Your task to perform on an android device: What's the weather going to be tomorrow? Image 0: 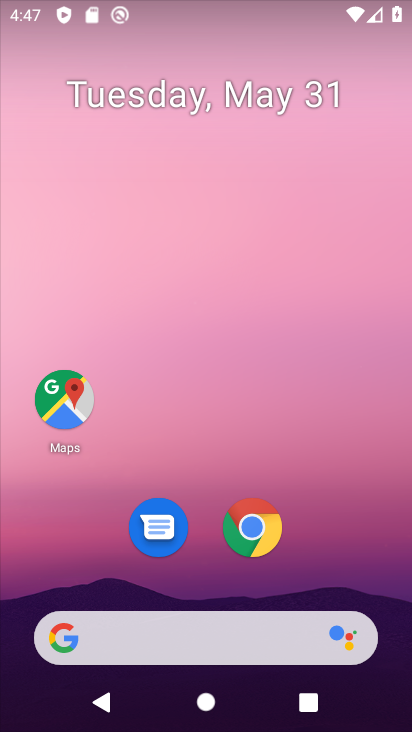
Step 0: click (52, 400)
Your task to perform on an android device: What's the weather going to be tomorrow? Image 1: 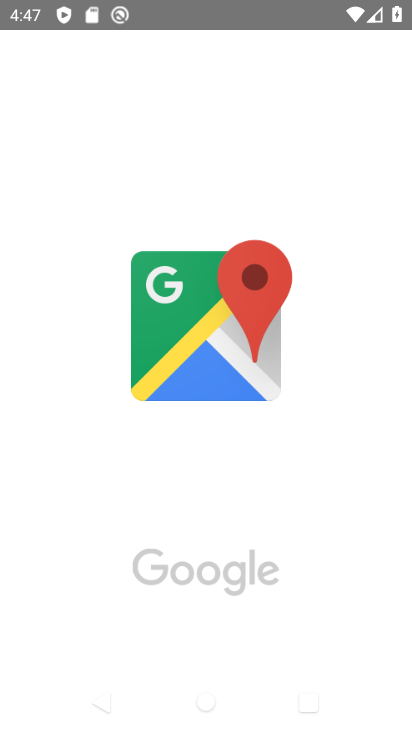
Step 1: press home button
Your task to perform on an android device: What's the weather going to be tomorrow? Image 2: 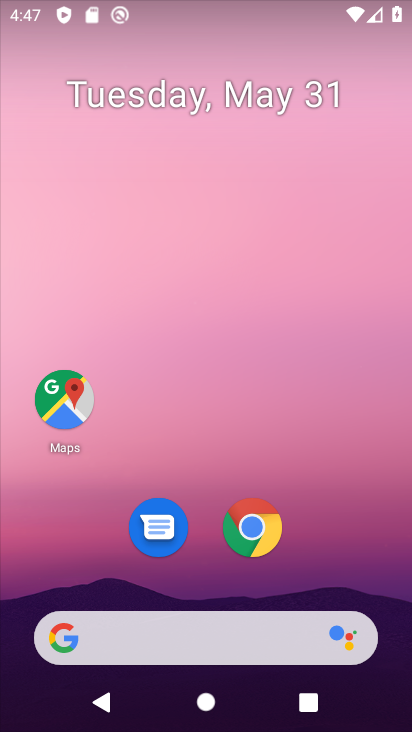
Step 2: drag from (244, 564) to (252, 144)
Your task to perform on an android device: What's the weather going to be tomorrow? Image 3: 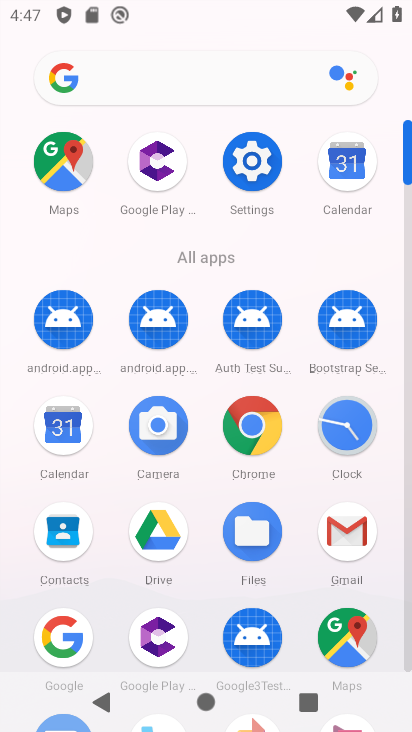
Step 3: click (258, 424)
Your task to perform on an android device: What's the weather going to be tomorrow? Image 4: 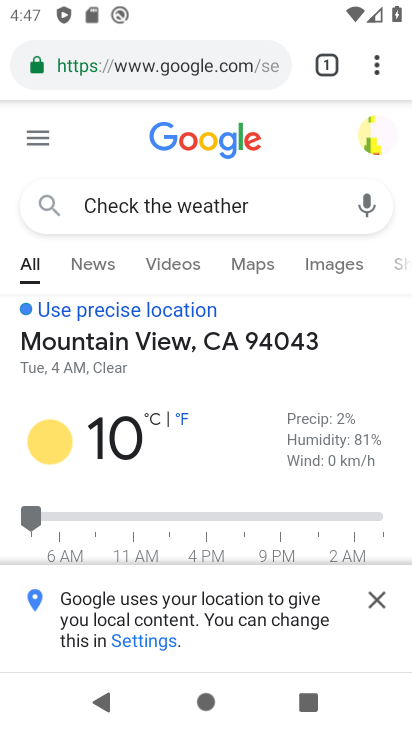
Step 4: click (204, 57)
Your task to perform on an android device: What's the weather going to be tomorrow? Image 5: 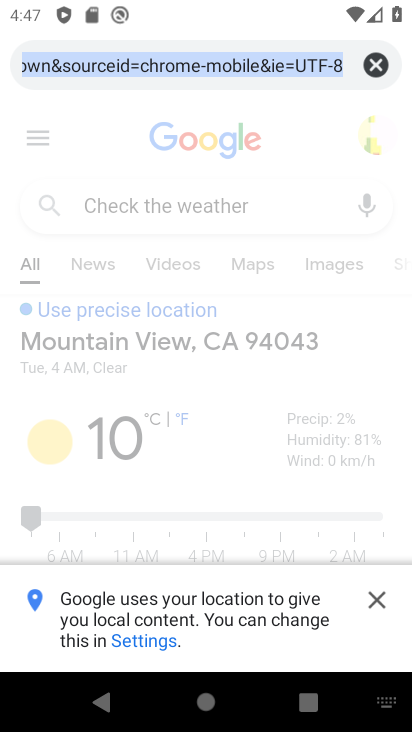
Step 5: click (382, 62)
Your task to perform on an android device: What's the weather going to be tomorrow? Image 6: 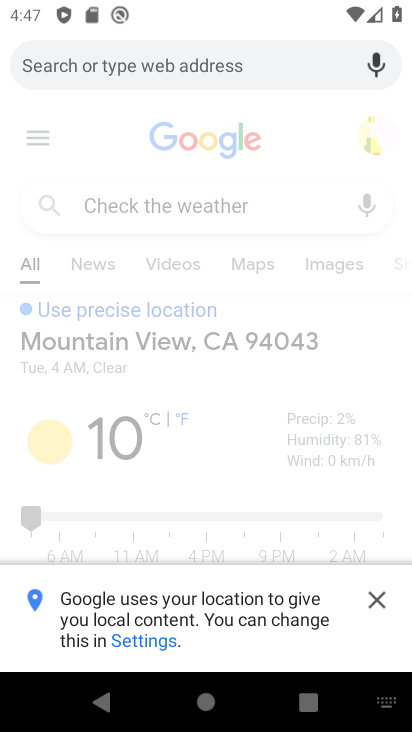
Step 6: drag from (138, 731) to (235, 731)
Your task to perform on an android device: What's the weather going to be tomorrow? Image 7: 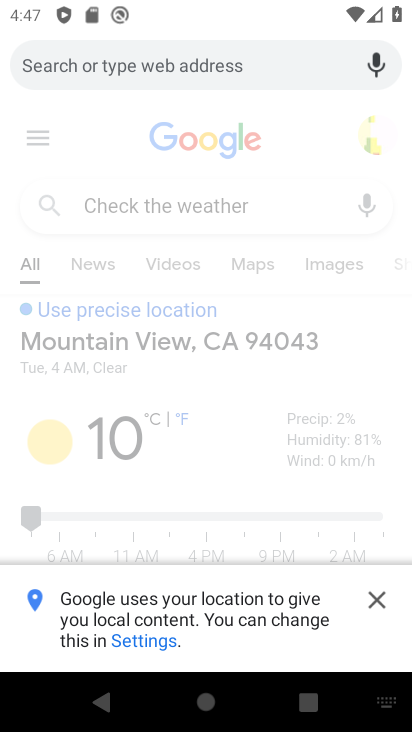
Step 7: type "What's the weather going to be tomorrow?"
Your task to perform on an android device: What's the weather going to be tomorrow? Image 8: 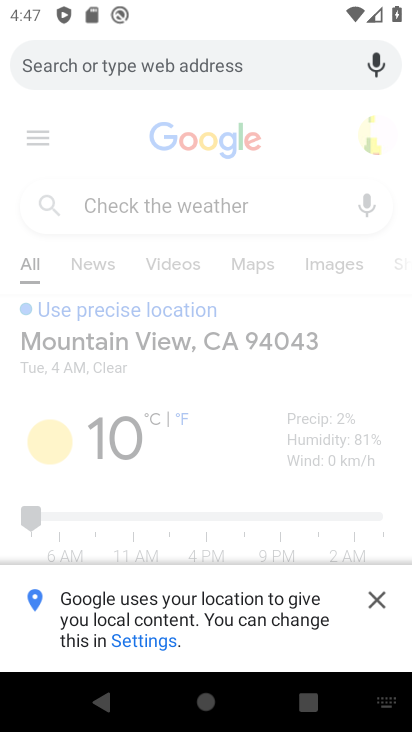
Step 8: click (396, 241)
Your task to perform on an android device: What's the weather going to be tomorrow? Image 9: 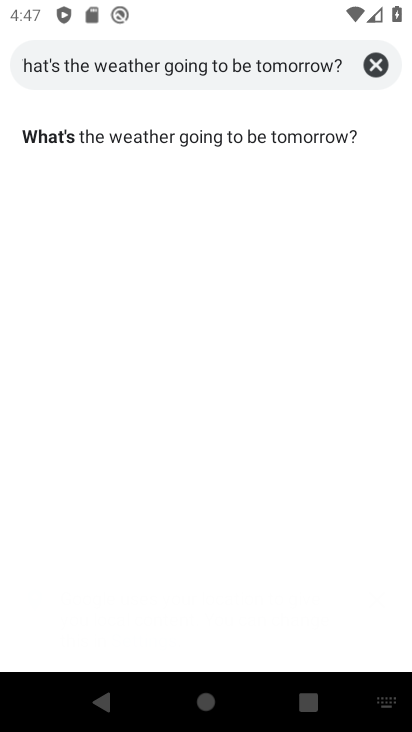
Step 9: click (231, 135)
Your task to perform on an android device: What's the weather going to be tomorrow? Image 10: 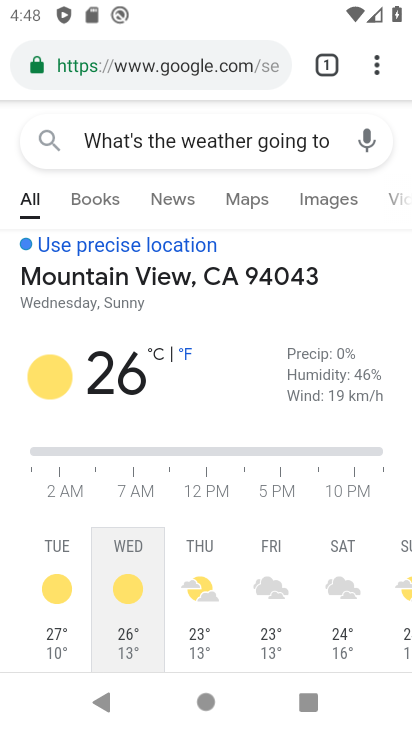
Step 10: task complete